Your task to perform on an android device: What's the weather going to be this weekend? Image 0: 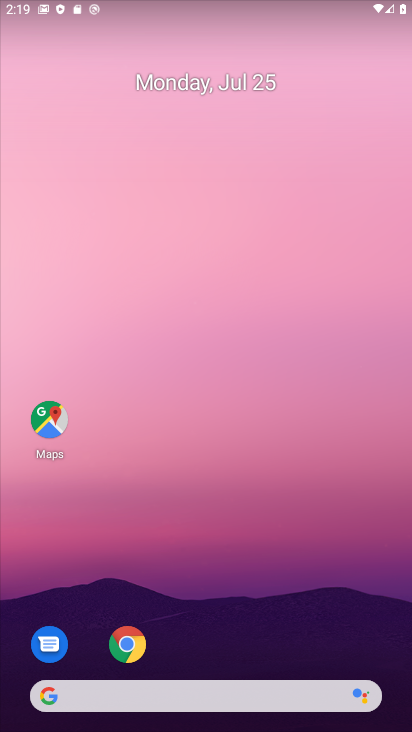
Step 0: drag from (212, 701) to (225, 192)
Your task to perform on an android device: What's the weather going to be this weekend? Image 1: 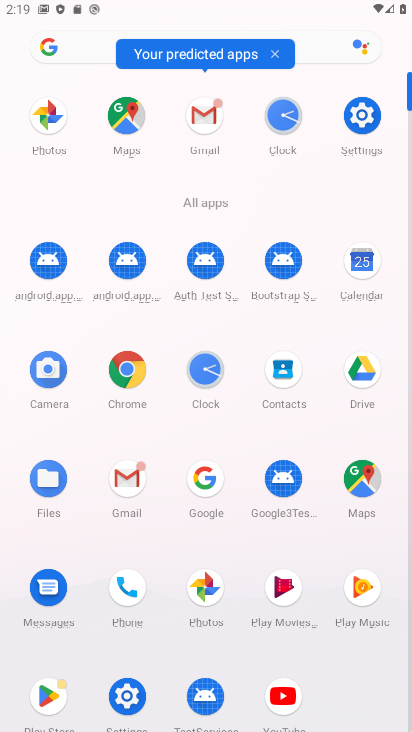
Step 1: click (123, 378)
Your task to perform on an android device: What's the weather going to be this weekend? Image 2: 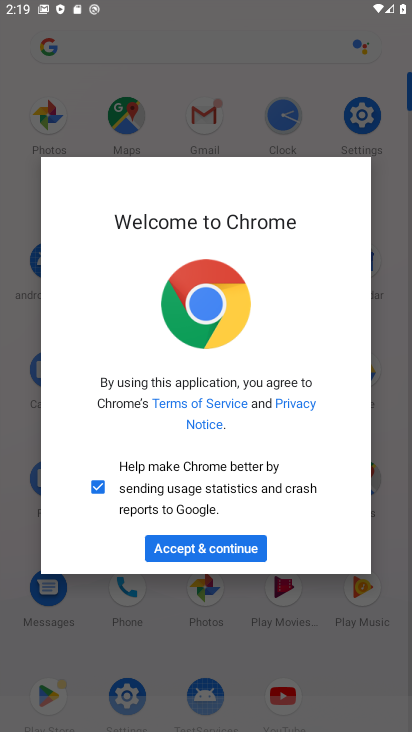
Step 2: click (223, 537)
Your task to perform on an android device: What's the weather going to be this weekend? Image 3: 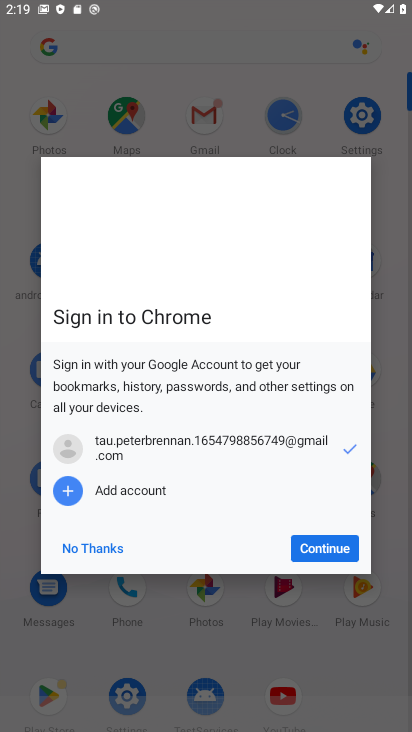
Step 3: click (325, 537)
Your task to perform on an android device: What's the weather going to be this weekend? Image 4: 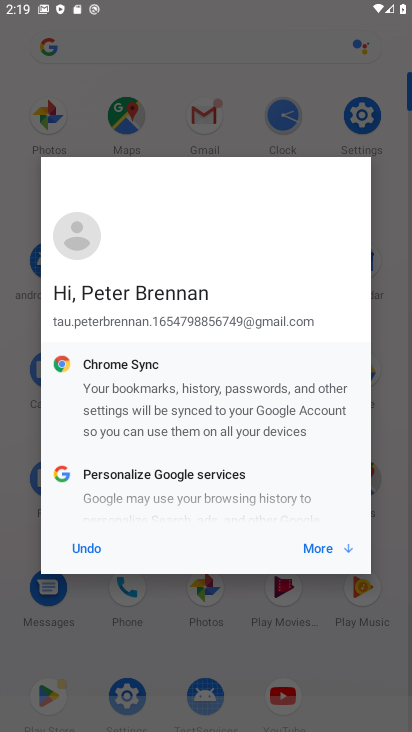
Step 4: click (312, 550)
Your task to perform on an android device: What's the weather going to be this weekend? Image 5: 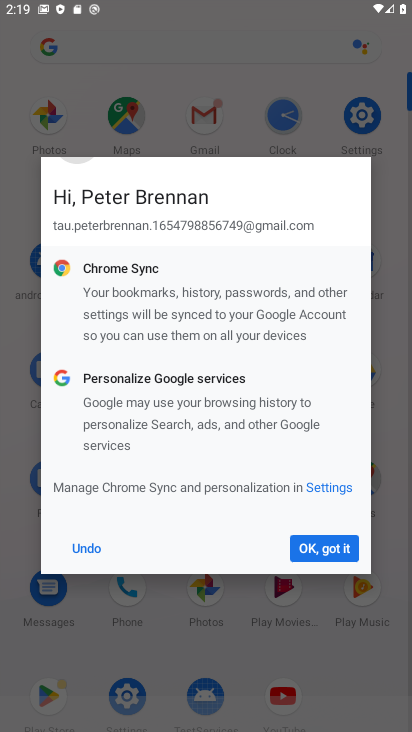
Step 5: click (312, 550)
Your task to perform on an android device: What's the weather going to be this weekend? Image 6: 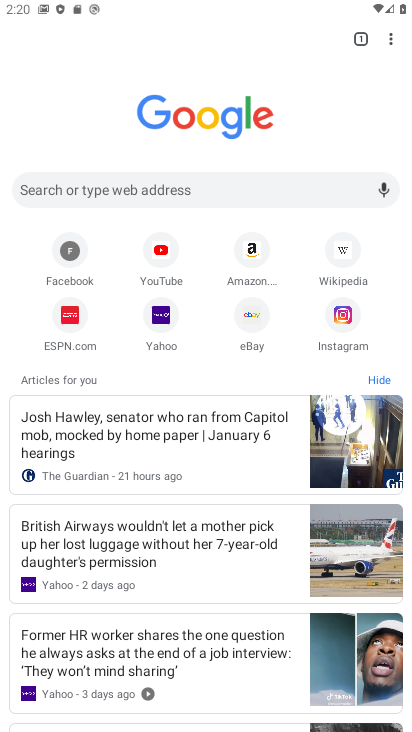
Step 6: click (138, 183)
Your task to perform on an android device: What's the weather going to be this weekend? Image 7: 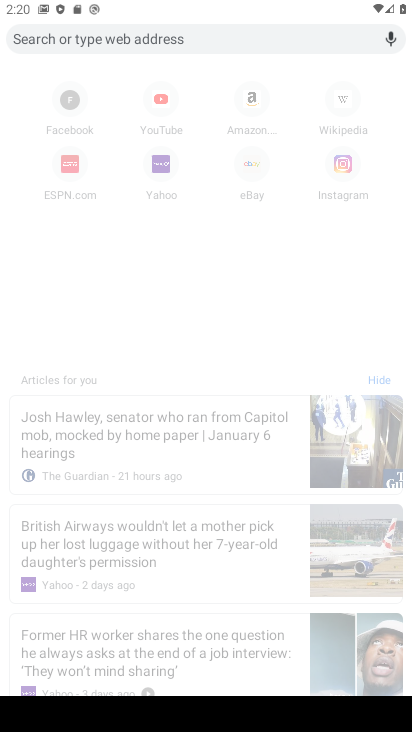
Step 7: type "weather weekend"
Your task to perform on an android device: What's the weather going to be this weekend? Image 8: 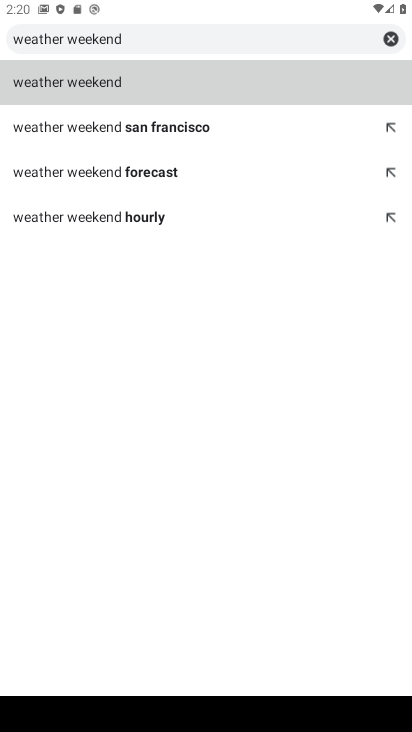
Step 8: click (74, 91)
Your task to perform on an android device: What's the weather going to be this weekend? Image 9: 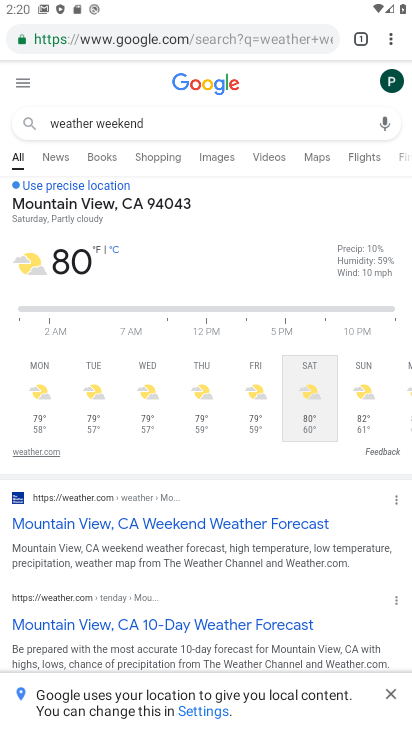
Step 9: task complete